Your task to perform on an android device: Find coffee shops on Maps Image 0: 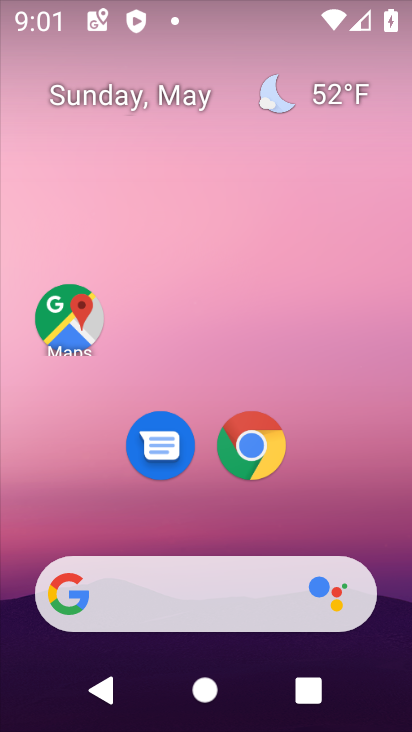
Step 0: click (68, 320)
Your task to perform on an android device: Find coffee shops on Maps Image 1: 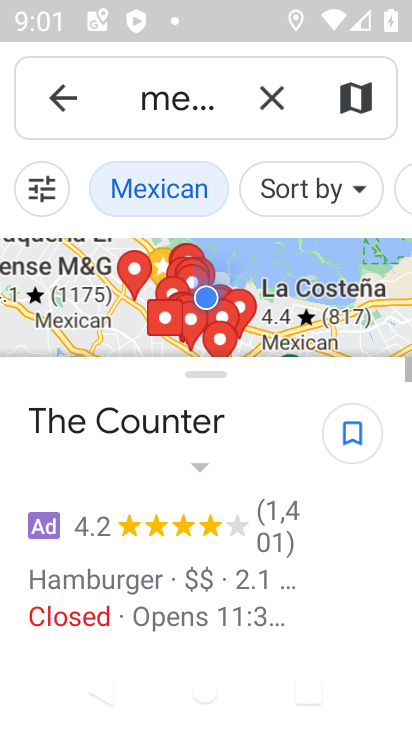
Step 1: click (265, 98)
Your task to perform on an android device: Find coffee shops on Maps Image 2: 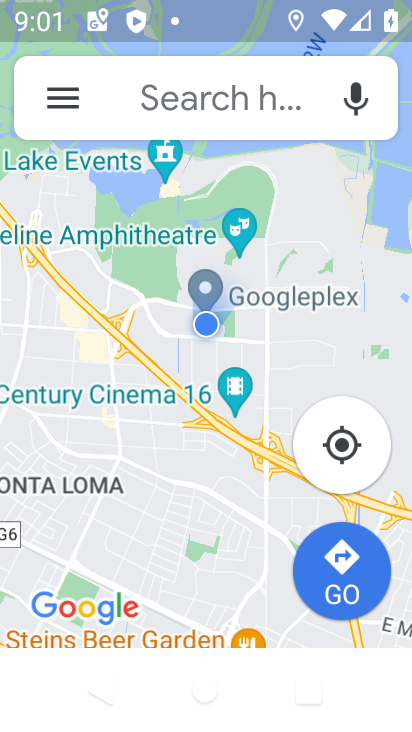
Step 2: click (159, 92)
Your task to perform on an android device: Find coffee shops on Maps Image 3: 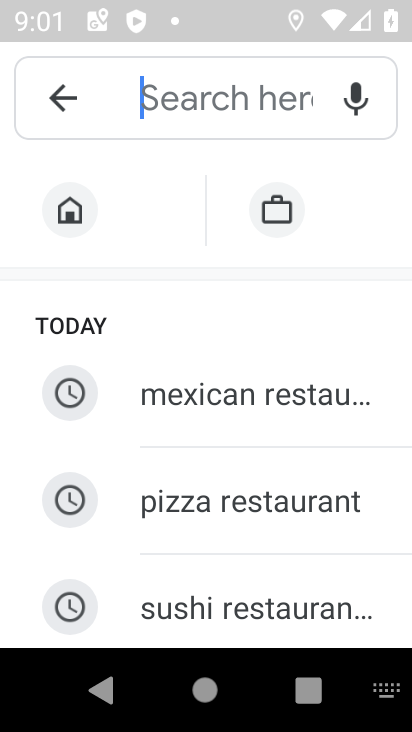
Step 3: type "coffee shop"
Your task to perform on an android device: Find coffee shops on Maps Image 4: 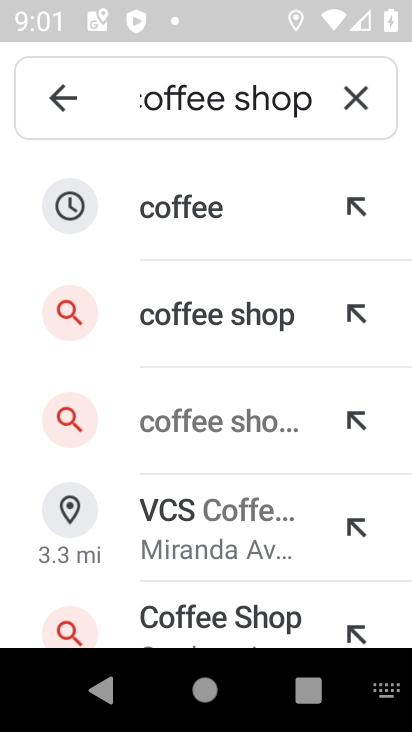
Step 4: click (200, 313)
Your task to perform on an android device: Find coffee shops on Maps Image 5: 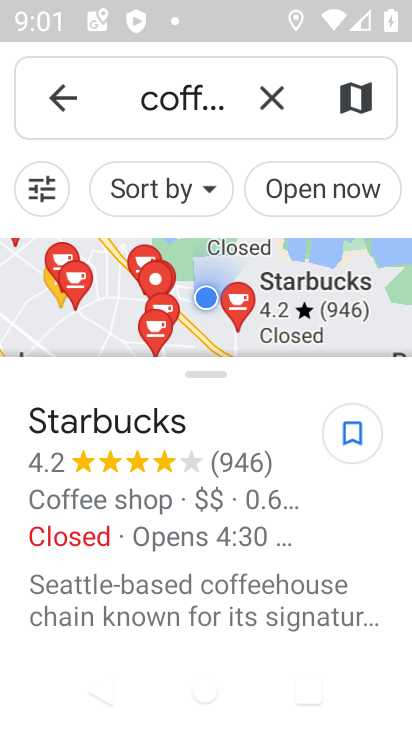
Step 5: task complete